Your task to perform on an android device: Open notification settings Image 0: 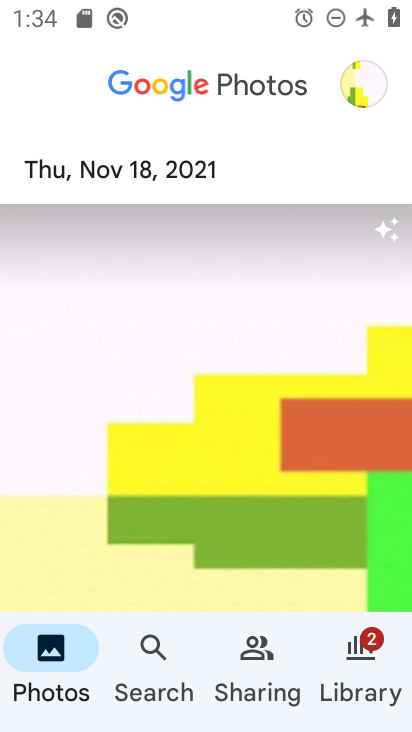
Step 0: press home button
Your task to perform on an android device: Open notification settings Image 1: 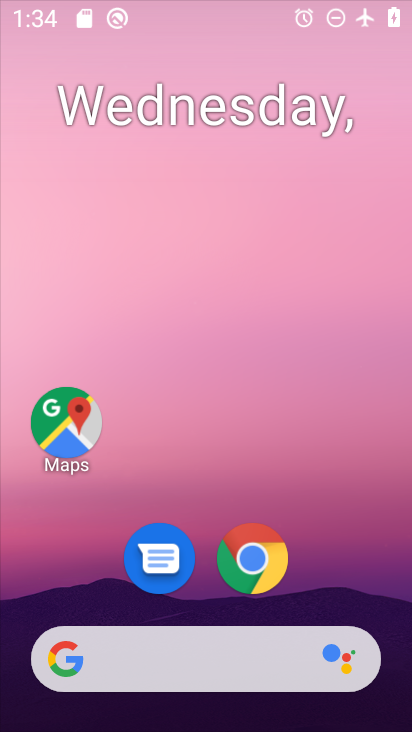
Step 1: drag from (385, 644) to (377, 116)
Your task to perform on an android device: Open notification settings Image 2: 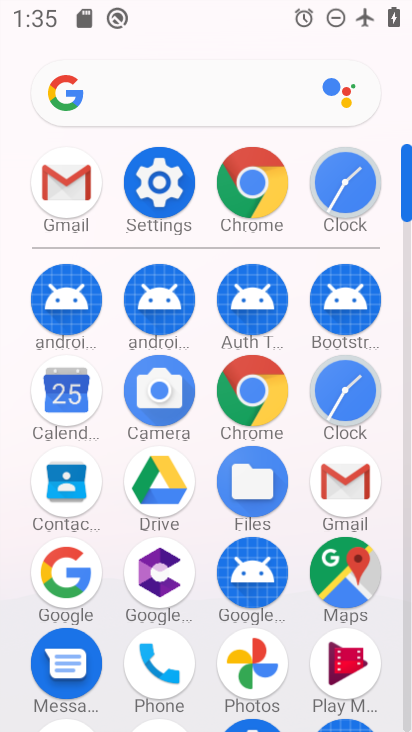
Step 2: click (155, 209)
Your task to perform on an android device: Open notification settings Image 3: 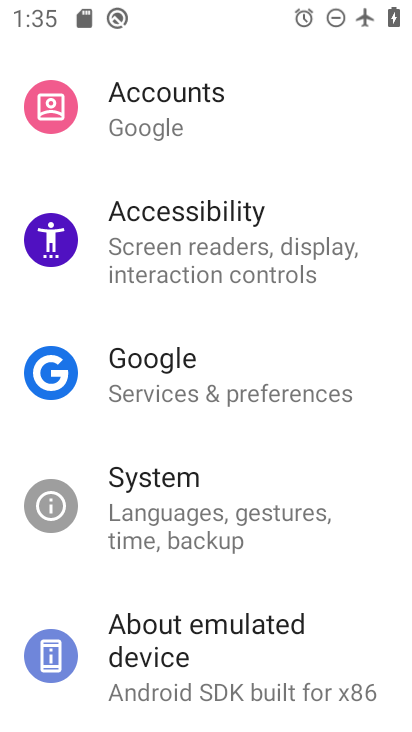
Step 3: drag from (260, 149) to (335, 660)
Your task to perform on an android device: Open notification settings Image 4: 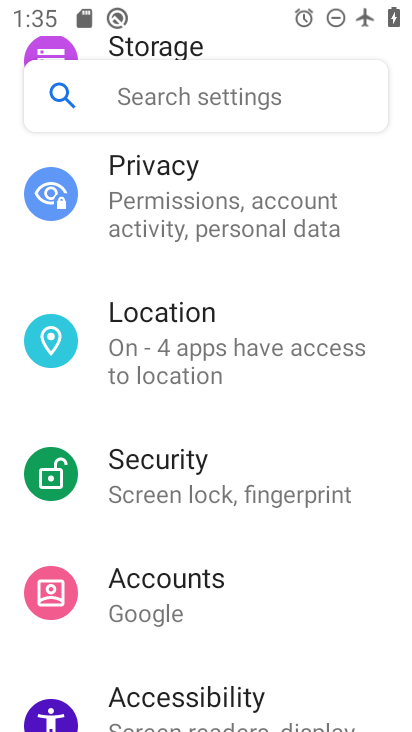
Step 4: drag from (267, 250) to (280, 681)
Your task to perform on an android device: Open notification settings Image 5: 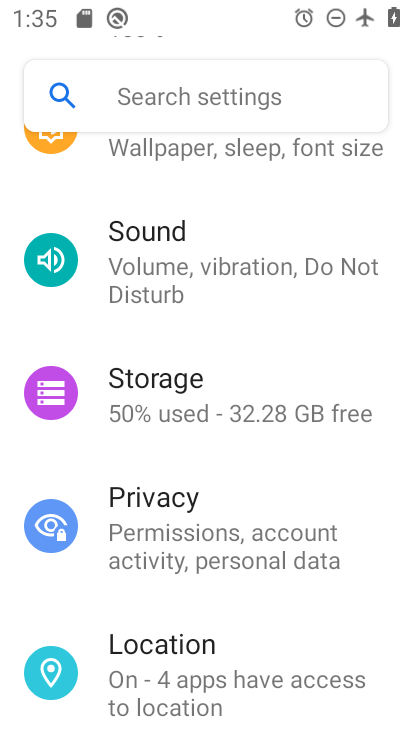
Step 5: drag from (279, 242) to (290, 685)
Your task to perform on an android device: Open notification settings Image 6: 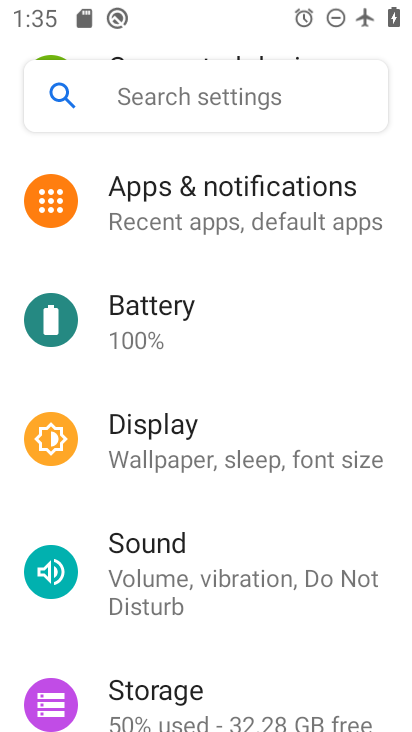
Step 6: click (270, 232)
Your task to perform on an android device: Open notification settings Image 7: 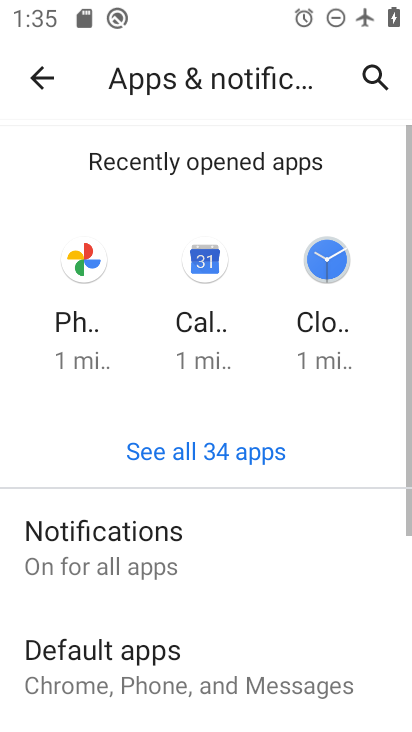
Step 7: click (162, 572)
Your task to perform on an android device: Open notification settings Image 8: 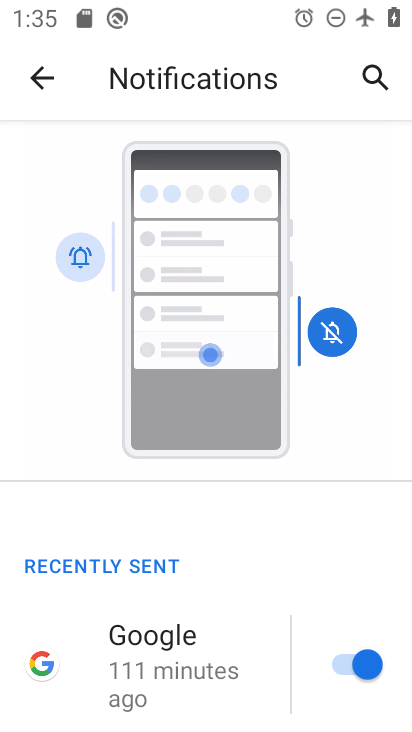
Step 8: task complete